Your task to perform on an android device: manage bookmarks in the chrome app Image 0: 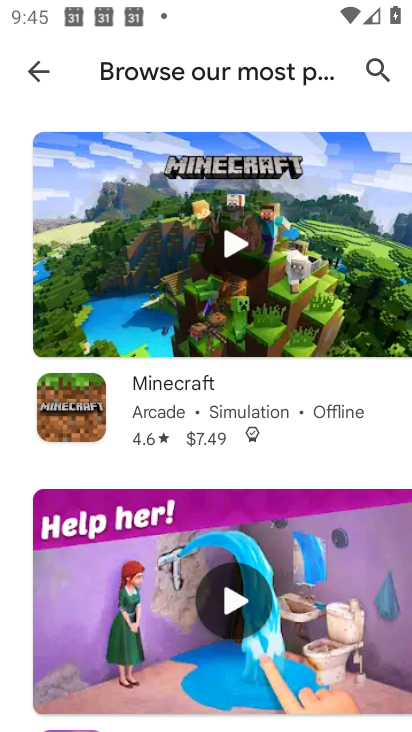
Step 0: press home button
Your task to perform on an android device: manage bookmarks in the chrome app Image 1: 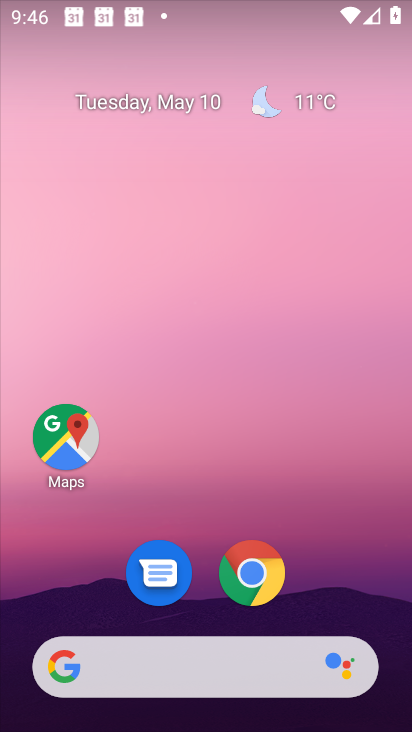
Step 1: click (266, 574)
Your task to perform on an android device: manage bookmarks in the chrome app Image 2: 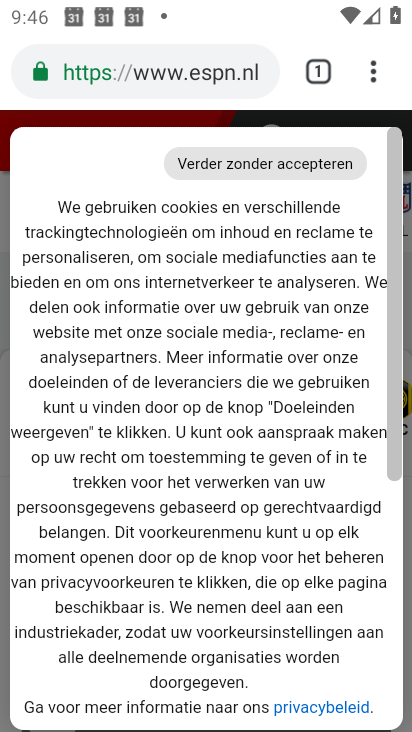
Step 2: click (374, 75)
Your task to perform on an android device: manage bookmarks in the chrome app Image 3: 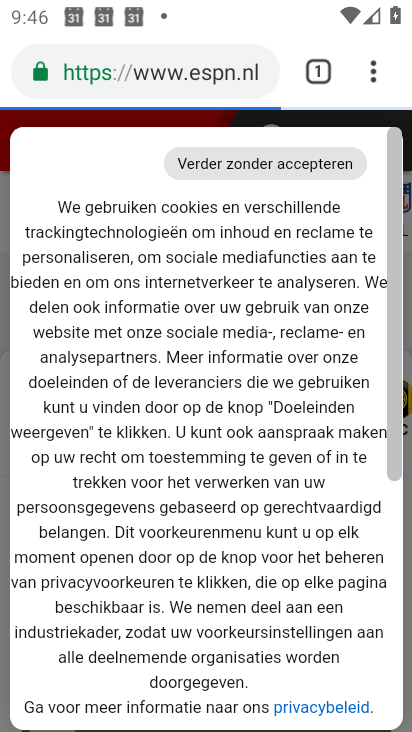
Step 3: drag from (372, 73) to (190, 280)
Your task to perform on an android device: manage bookmarks in the chrome app Image 4: 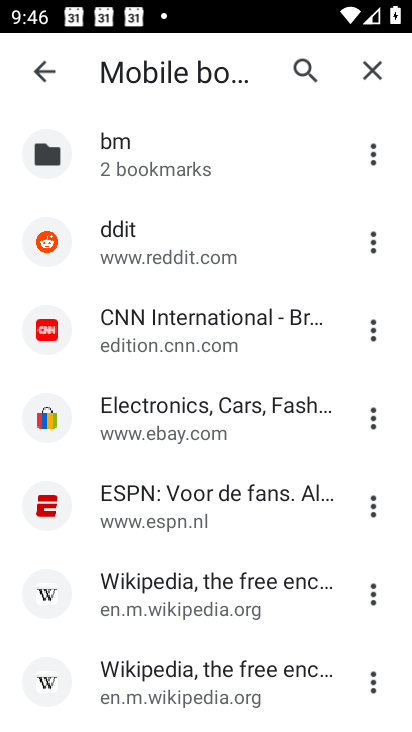
Step 4: click (366, 164)
Your task to perform on an android device: manage bookmarks in the chrome app Image 5: 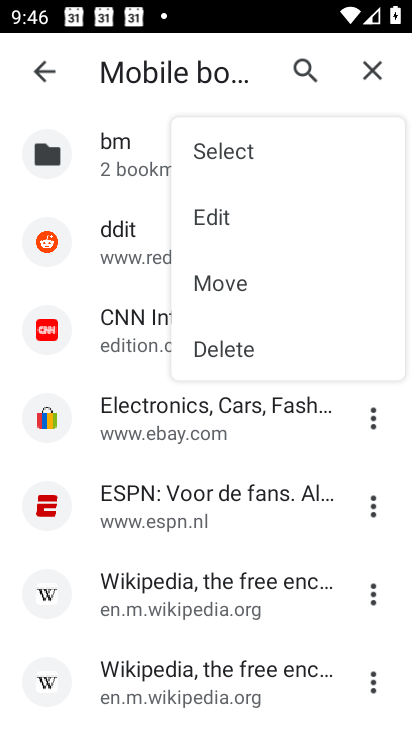
Step 5: click (242, 222)
Your task to perform on an android device: manage bookmarks in the chrome app Image 6: 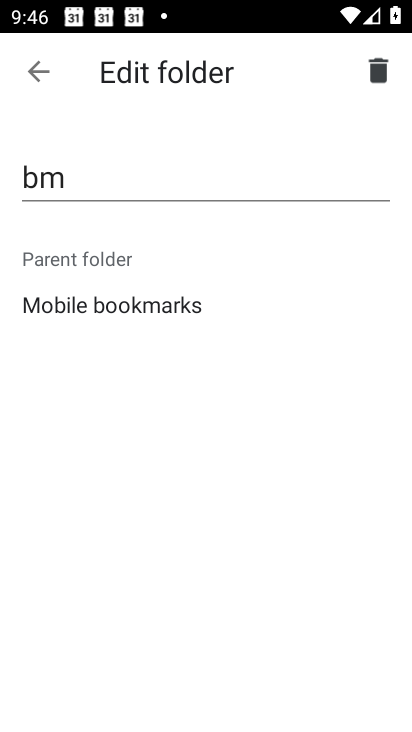
Step 6: drag from (83, 173) to (4, 169)
Your task to perform on an android device: manage bookmarks in the chrome app Image 7: 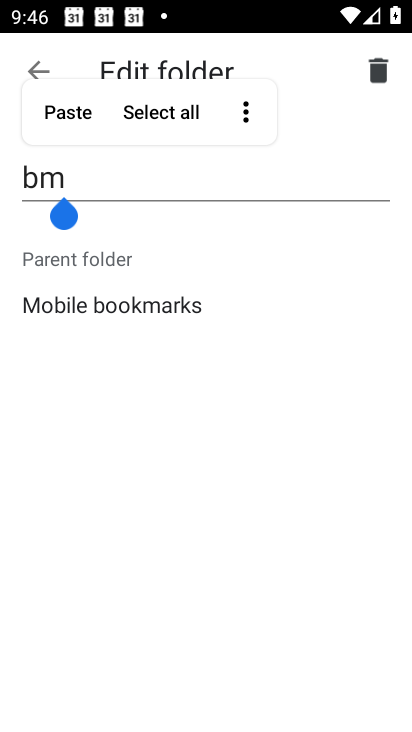
Step 7: click (161, 307)
Your task to perform on an android device: manage bookmarks in the chrome app Image 8: 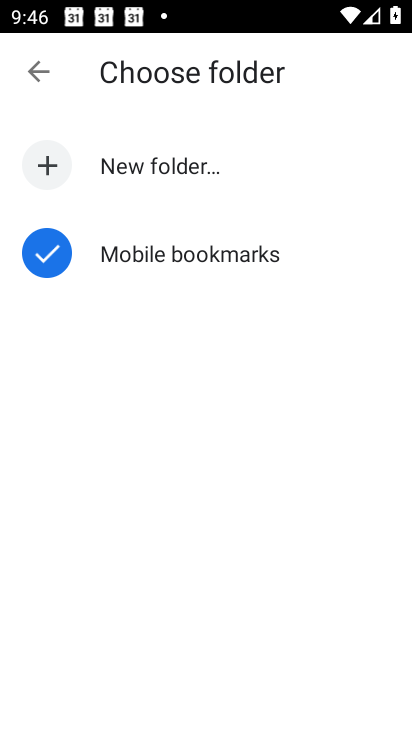
Step 8: click (52, 158)
Your task to perform on an android device: manage bookmarks in the chrome app Image 9: 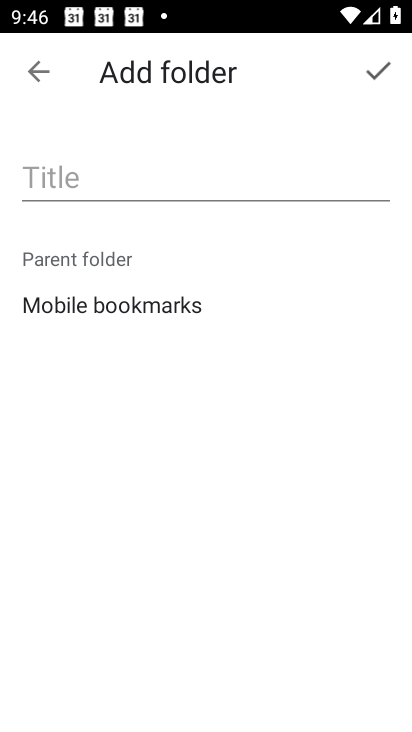
Step 9: click (150, 180)
Your task to perform on an android device: manage bookmarks in the chrome app Image 10: 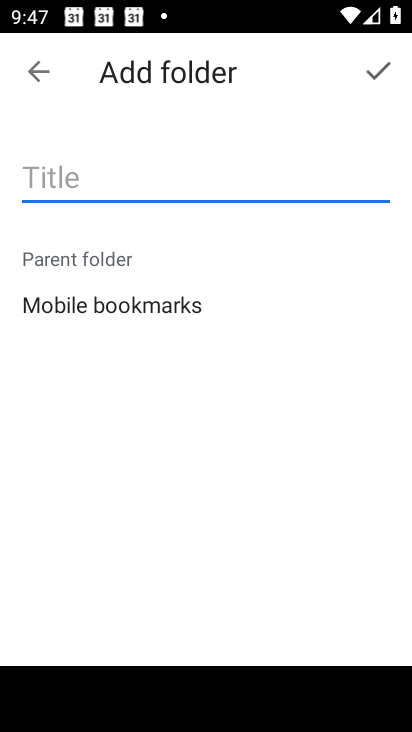
Step 10: type "htfghtr"
Your task to perform on an android device: manage bookmarks in the chrome app Image 11: 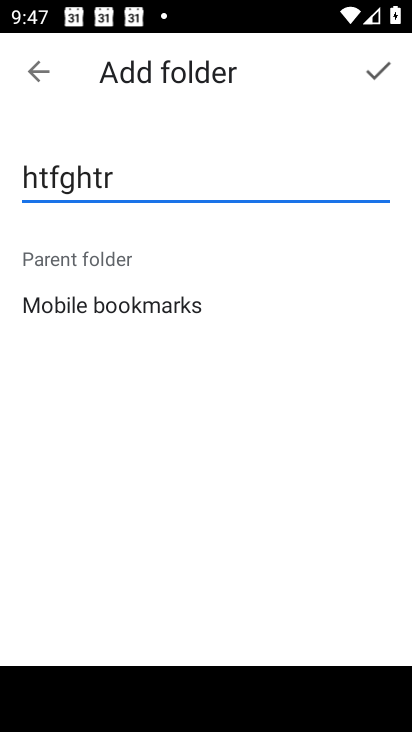
Step 11: click (395, 74)
Your task to perform on an android device: manage bookmarks in the chrome app Image 12: 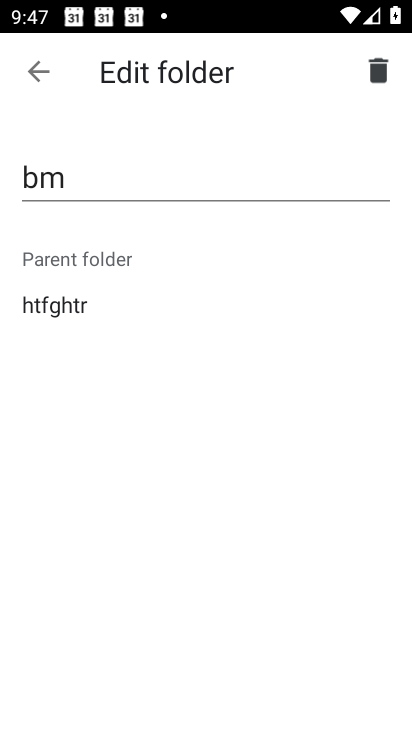
Step 12: task complete